Your task to perform on an android device: open sync settings in chrome Image 0: 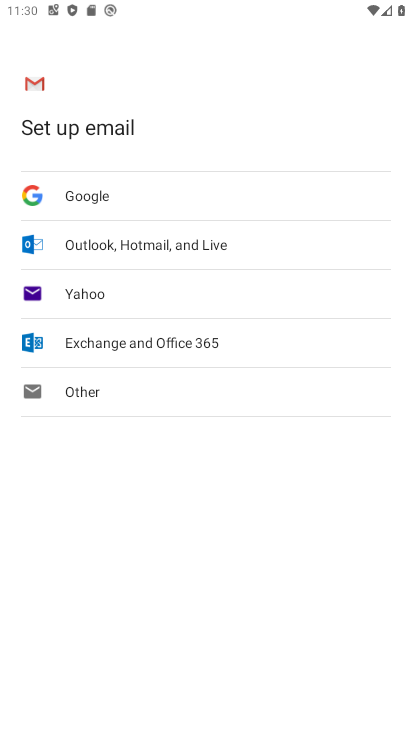
Step 0: press home button
Your task to perform on an android device: open sync settings in chrome Image 1: 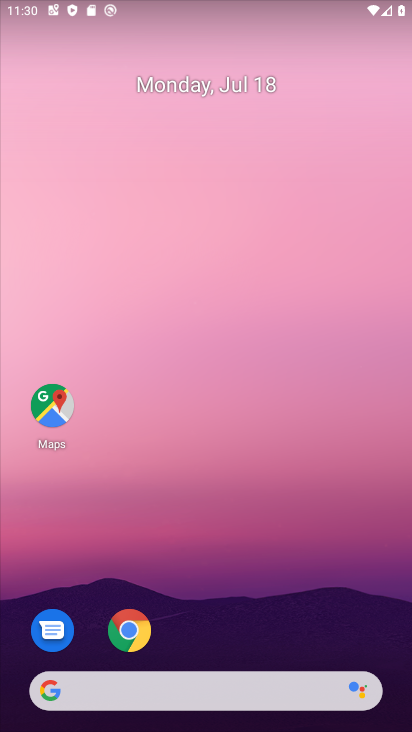
Step 1: drag from (365, 640) to (294, 100)
Your task to perform on an android device: open sync settings in chrome Image 2: 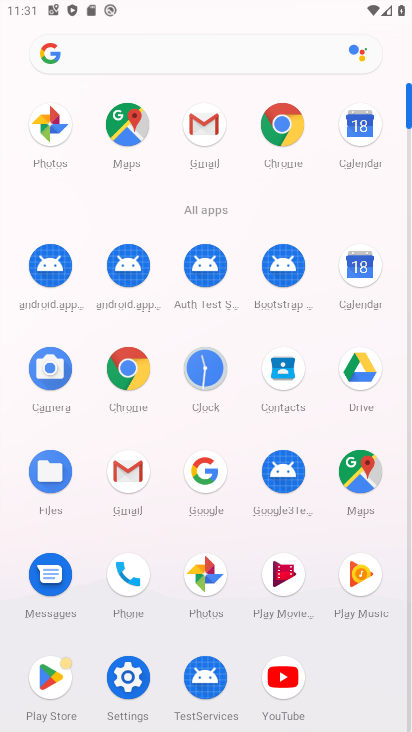
Step 2: click (290, 133)
Your task to perform on an android device: open sync settings in chrome Image 3: 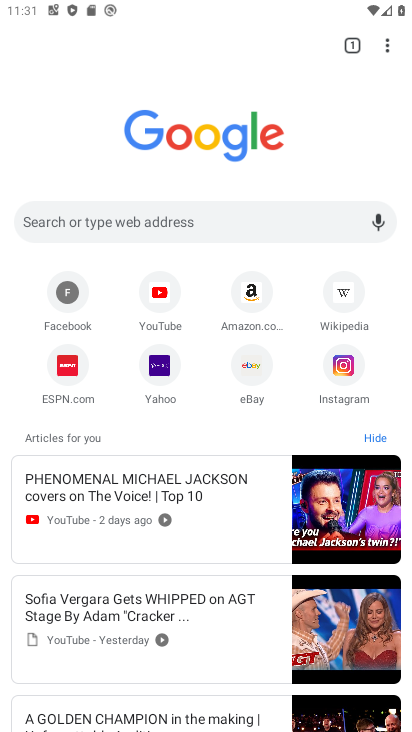
Step 3: click (392, 54)
Your task to perform on an android device: open sync settings in chrome Image 4: 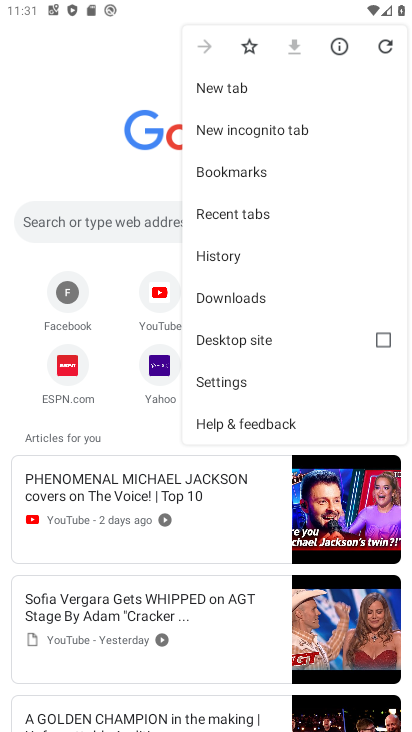
Step 4: click (258, 378)
Your task to perform on an android device: open sync settings in chrome Image 5: 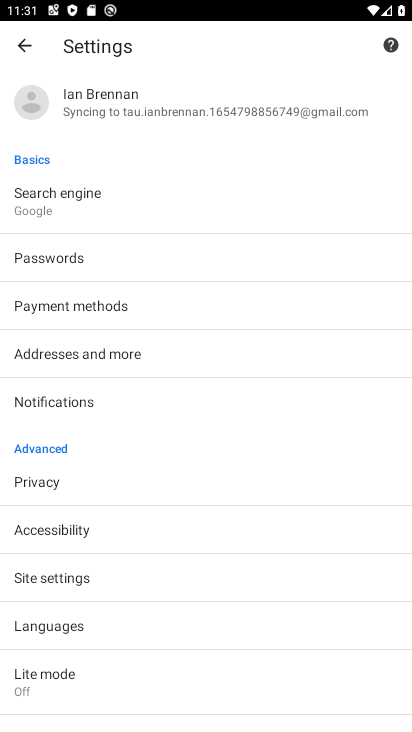
Step 5: click (194, 110)
Your task to perform on an android device: open sync settings in chrome Image 6: 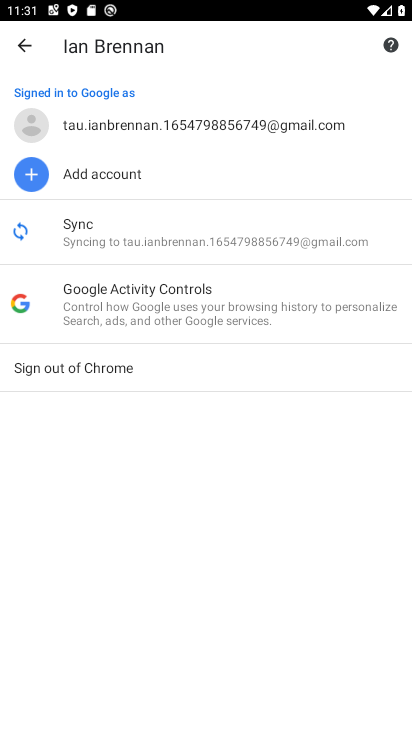
Step 6: click (150, 241)
Your task to perform on an android device: open sync settings in chrome Image 7: 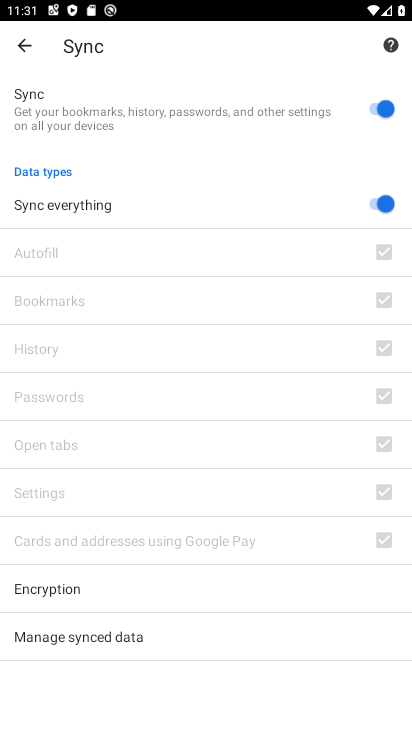
Step 7: task complete